Your task to perform on an android device: turn on improve location accuracy Image 0: 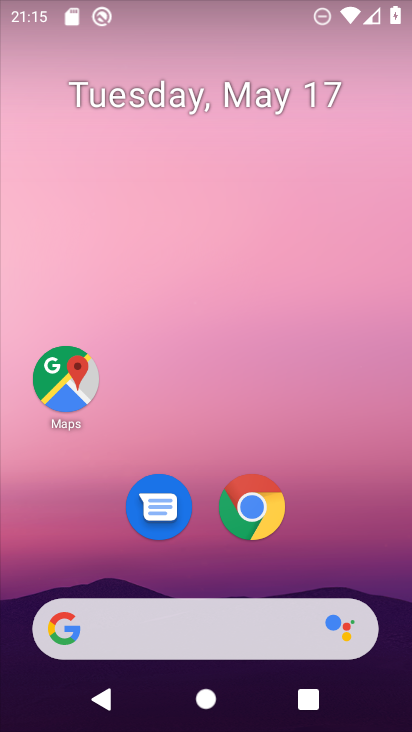
Step 0: drag from (356, 551) to (266, 31)
Your task to perform on an android device: turn on improve location accuracy Image 1: 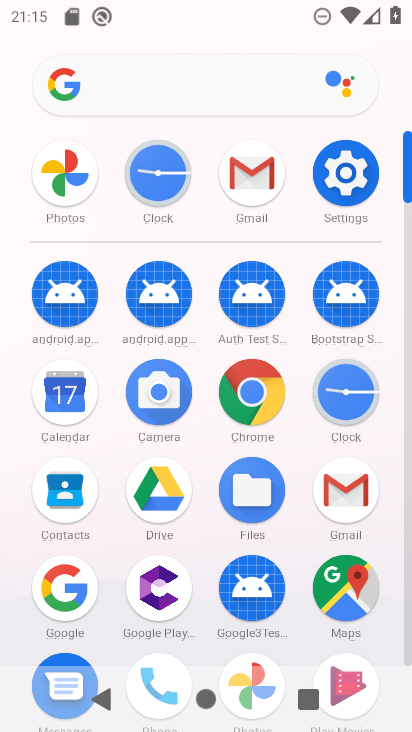
Step 1: click (344, 196)
Your task to perform on an android device: turn on improve location accuracy Image 2: 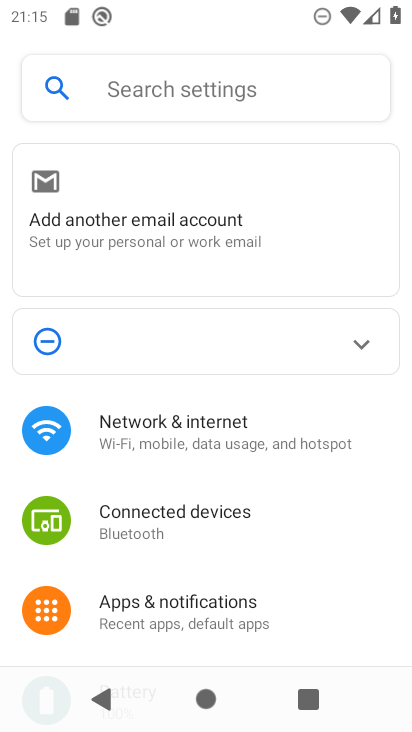
Step 2: drag from (286, 557) to (288, 56)
Your task to perform on an android device: turn on improve location accuracy Image 3: 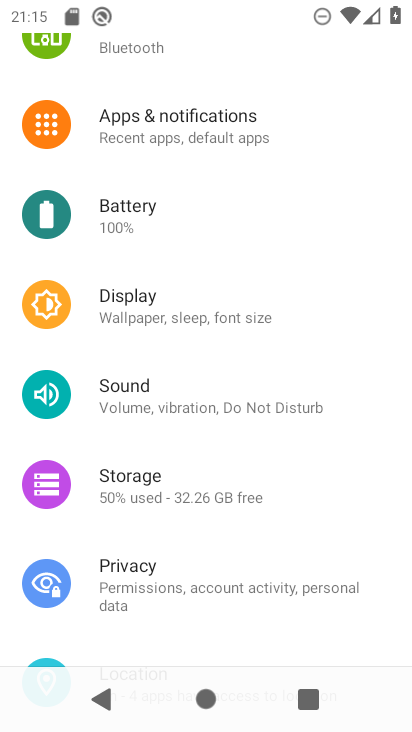
Step 3: drag from (206, 483) to (185, 197)
Your task to perform on an android device: turn on improve location accuracy Image 4: 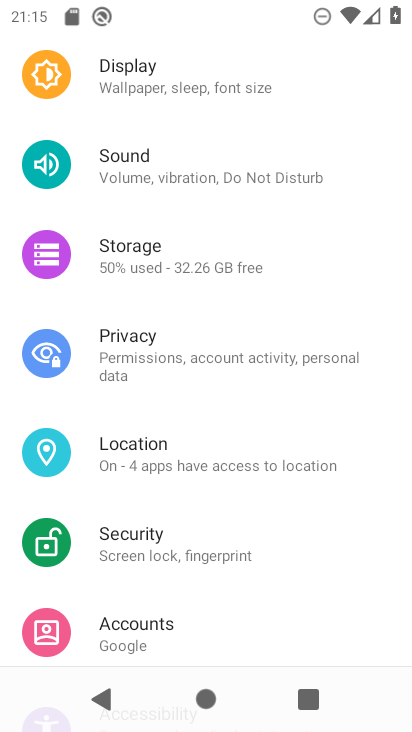
Step 4: click (125, 459)
Your task to perform on an android device: turn on improve location accuracy Image 5: 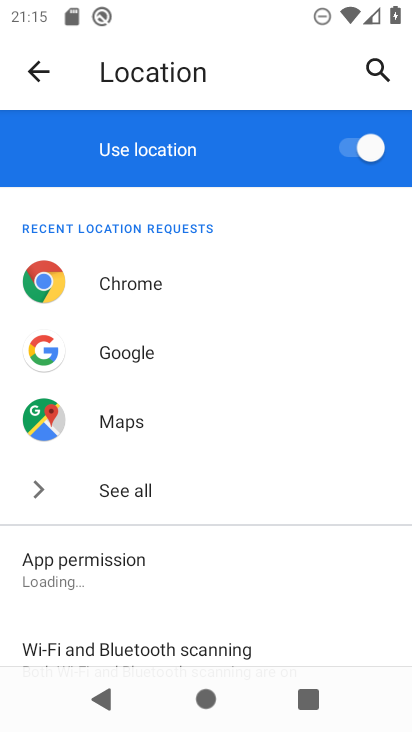
Step 5: drag from (195, 545) to (185, 266)
Your task to perform on an android device: turn on improve location accuracy Image 6: 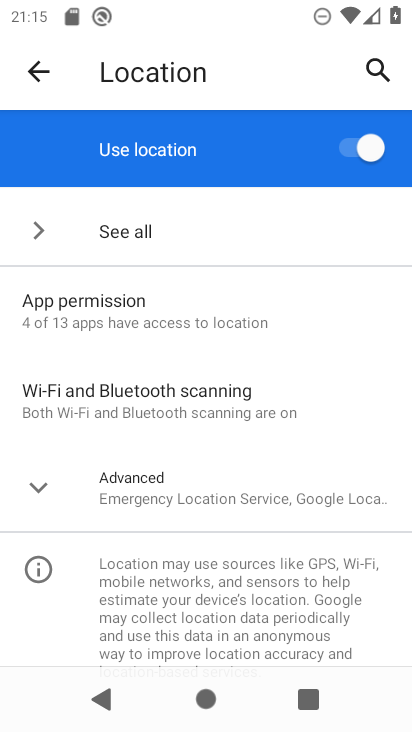
Step 6: click (35, 490)
Your task to perform on an android device: turn on improve location accuracy Image 7: 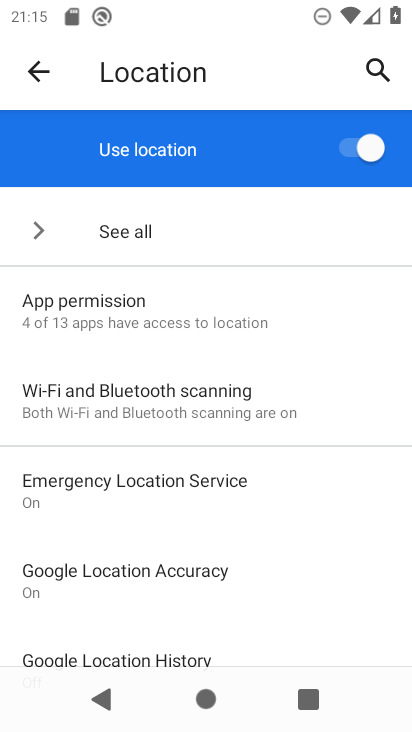
Step 7: click (134, 576)
Your task to perform on an android device: turn on improve location accuracy Image 8: 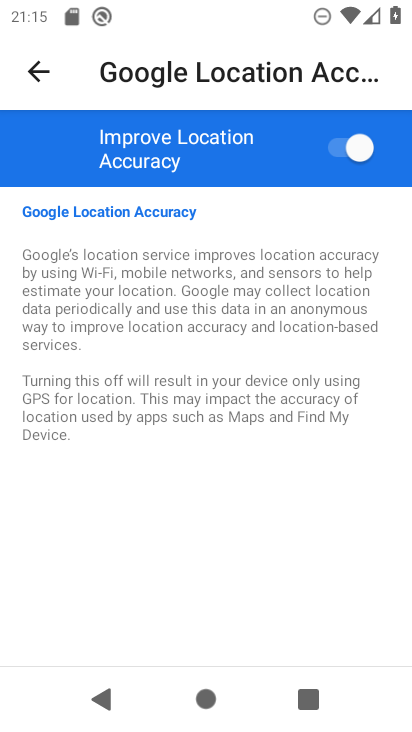
Step 8: task complete